Your task to perform on an android device: Go to Google Image 0: 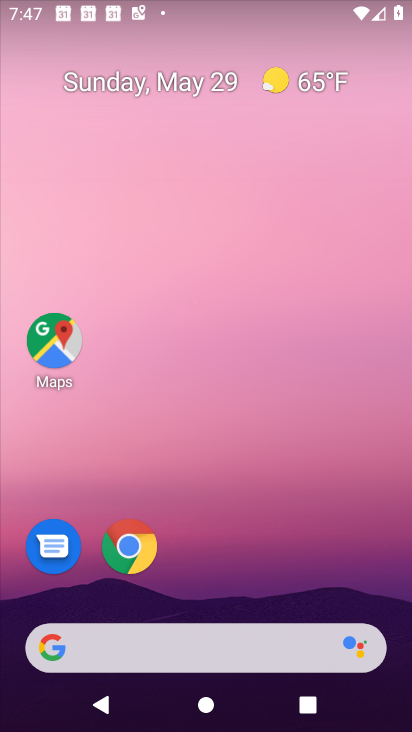
Step 0: drag from (184, 622) to (260, 89)
Your task to perform on an android device: Go to Google Image 1: 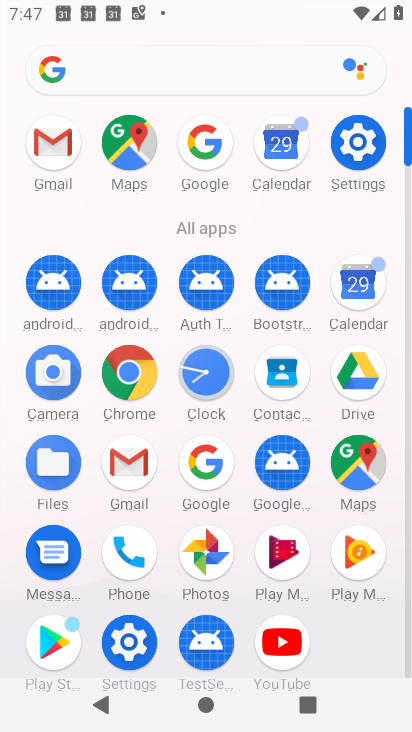
Step 1: click (201, 474)
Your task to perform on an android device: Go to Google Image 2: 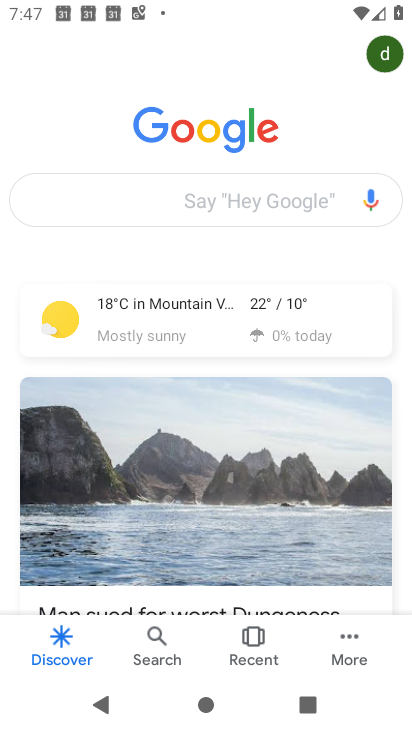
Step 2: task complete